Your task to perform on an android device: Check the news Image 0: 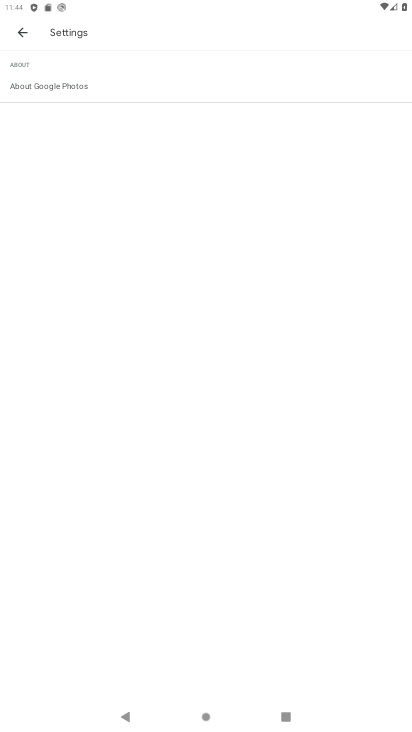
Step 0: click (20, 30)
Your task to perform on an android device: Check the news Image 1: 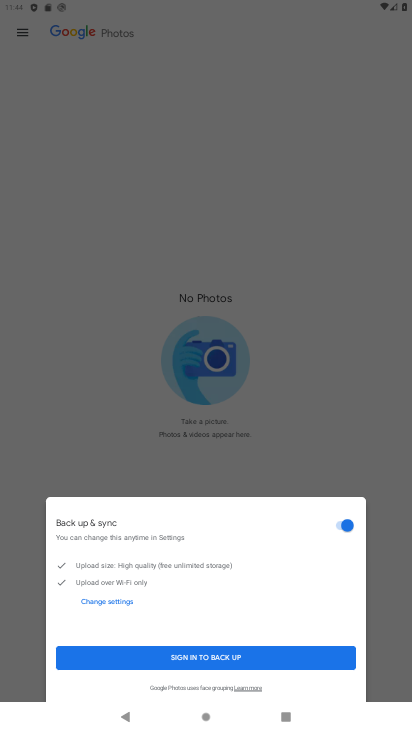
Step 1: click (268, 647)
Your task to perform on an android device: Check the news Image 2: 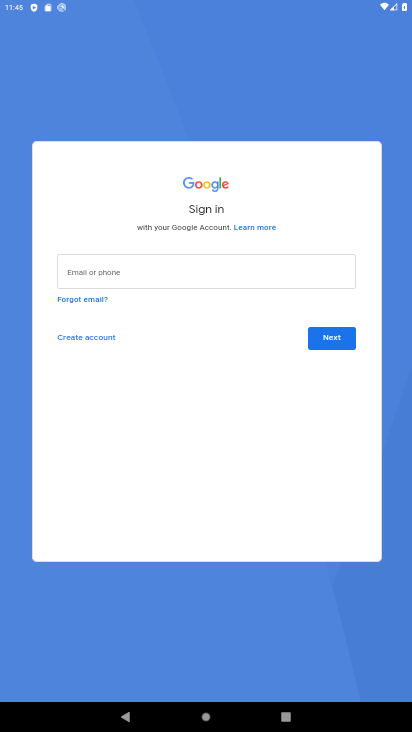
Step 2: press home button
Your task to perform on an android device: Check the news Image 3: 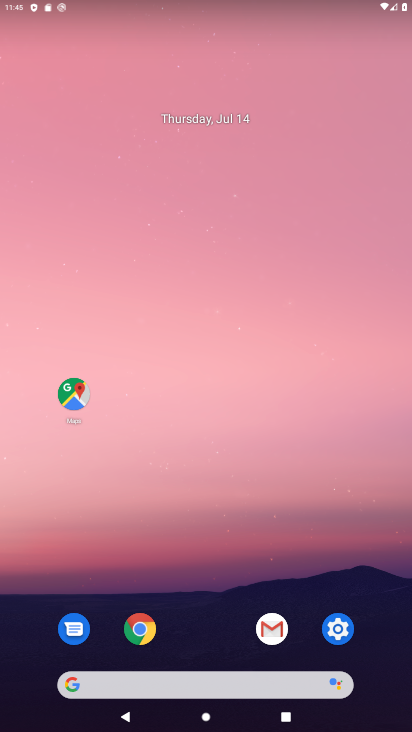
Step 3: click (150, 689)
Your task to perform on an android device: Check the news Image 4: 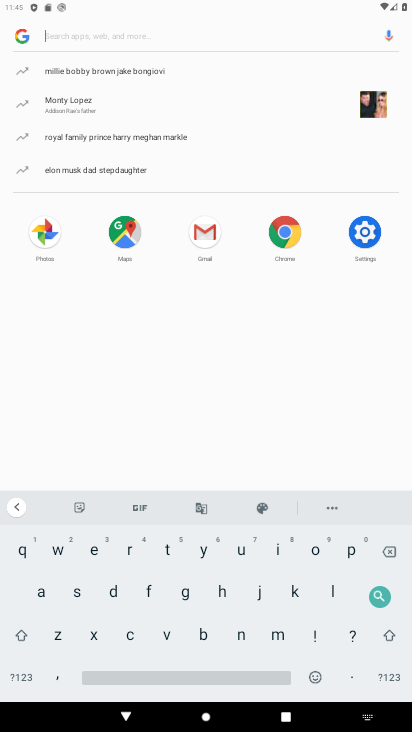
Step 4: click (238, 633)
Your task to perform on an android device: Check the news Image 5: 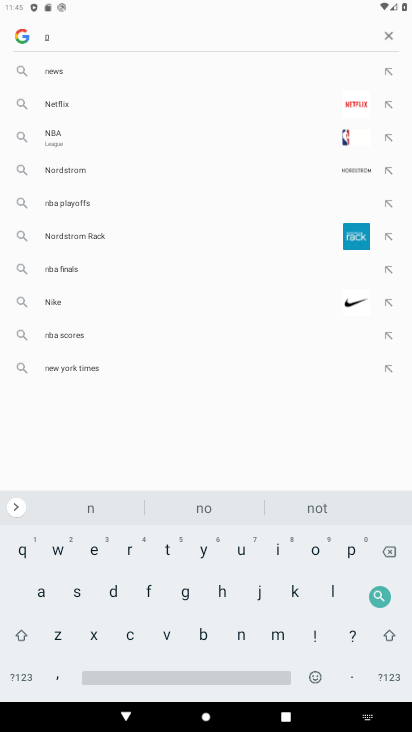
Step 5: click (95, 548)
Your task to perform on an android device: Check the news Image 6: 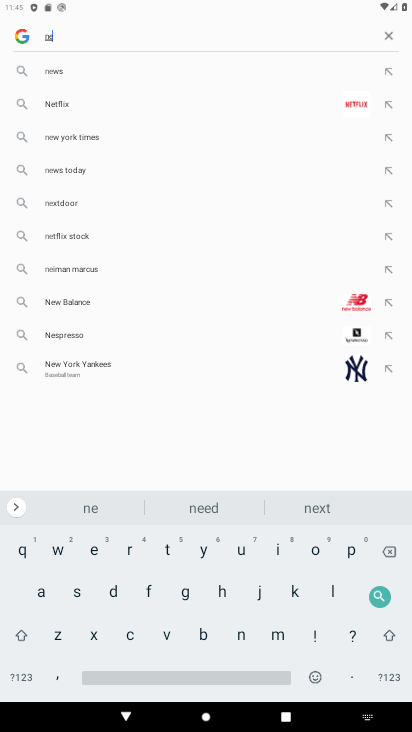
Step 6: click (53, 556)
Your task to perform on an android device: Check the news Image 7: 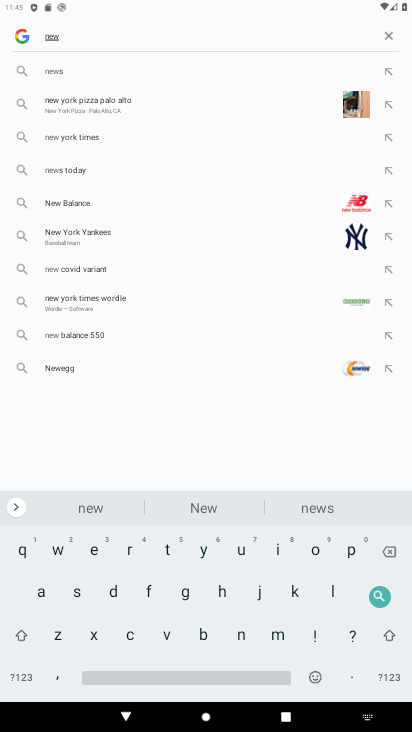
Step 7: click (76, 586)
Your task to perform on an android device: Check the news Image 8: 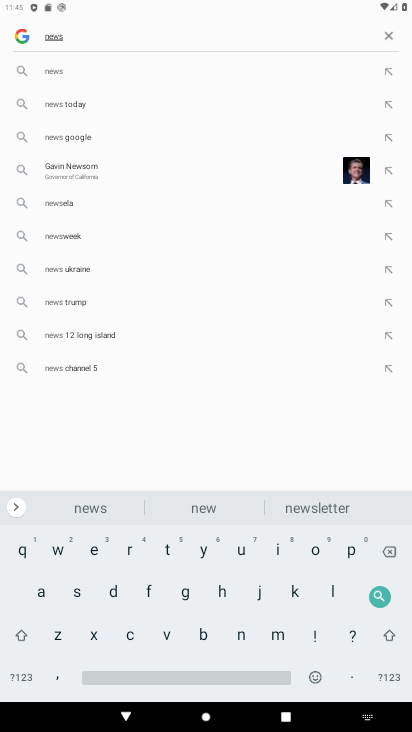
Step 8: click (94, 74)
Your task to perform on an android device: Check the news Image 9: 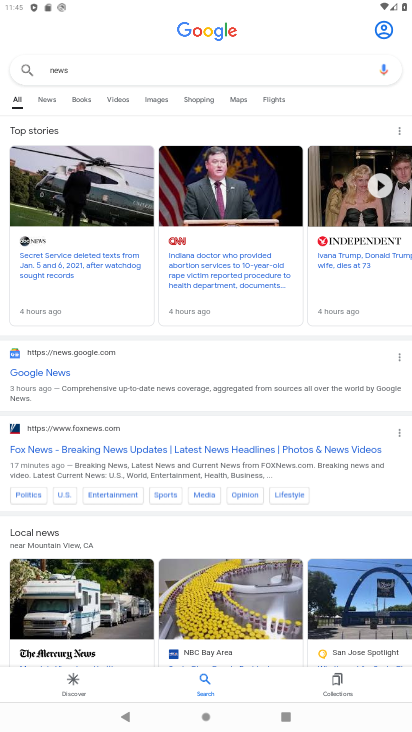
Step 9: task complete